Your task to perform on an android device: turn on airplane mode Image 0: 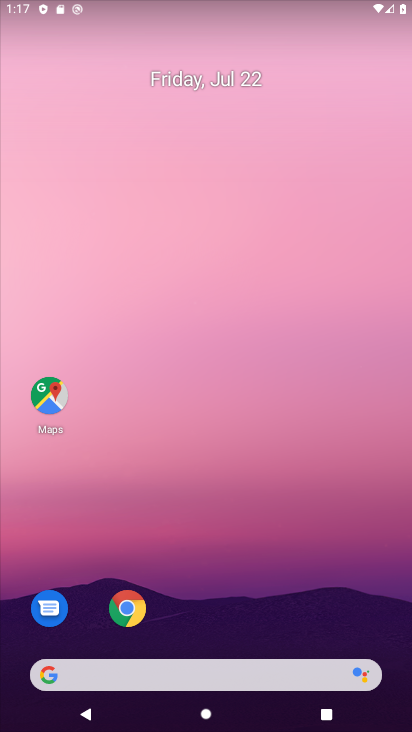
Step 0: drag from (259, 723) to (258, 230)
Your task to perform on an android device: turn on airplane mode Image 1: 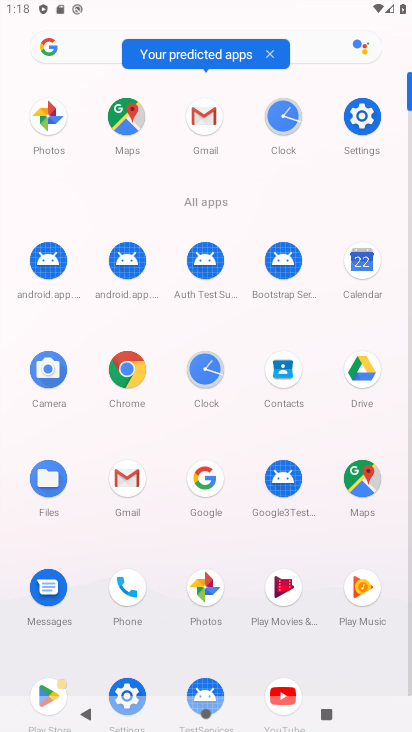
Step 1: click (358, 123)
Your task to perform on an android device: turn on airplane mode Image 2: 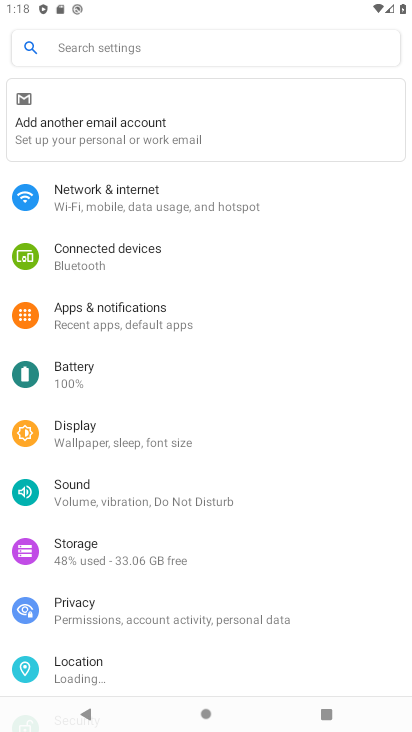
Step 2: click (115, 194)
Your task to perform on an android device: turn on airplane mode Image 3: 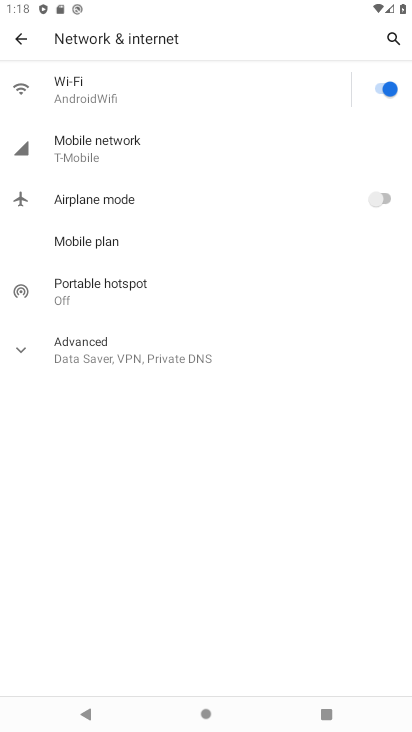
Step 3: click (384, 199)
Your task to perform on an android device: turn on airplane mode Image 4: 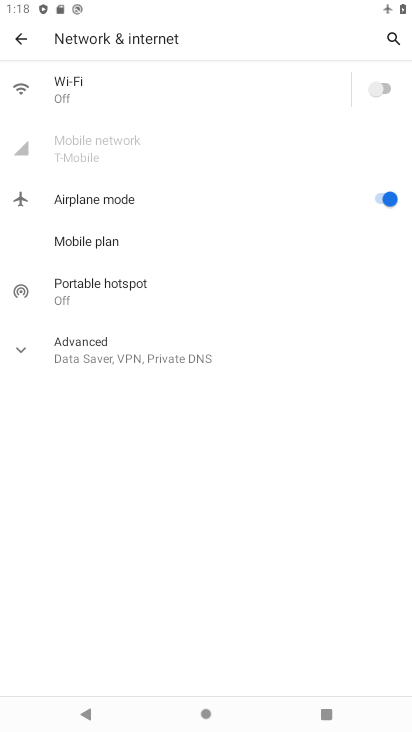
Step 4: task complete